Your task to perform on an android device: Go to wifi settings Image 0: 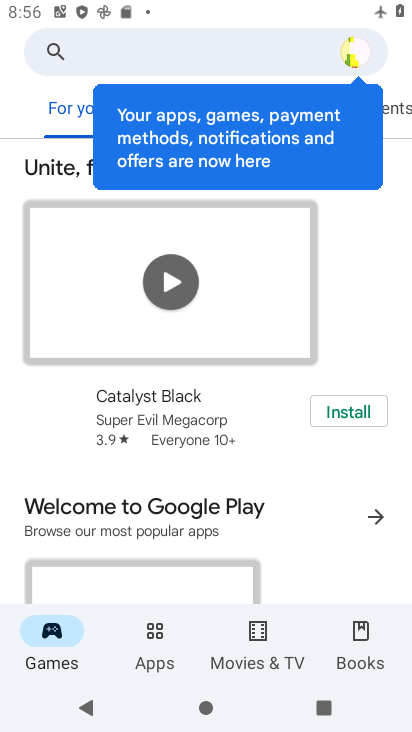
Step 0: press home button
Your task to perform on an android device: Go to wifi settings Image 1: 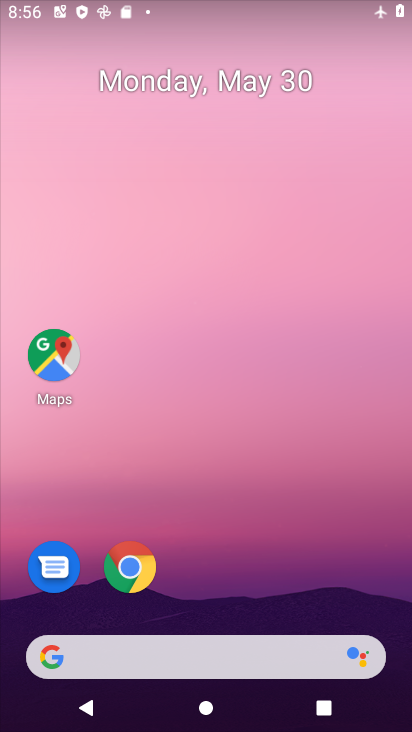
Step 1: drag from (249, 594) to (217, 107)
Your task to perform on an android device: Go to wifi settings Image 2: 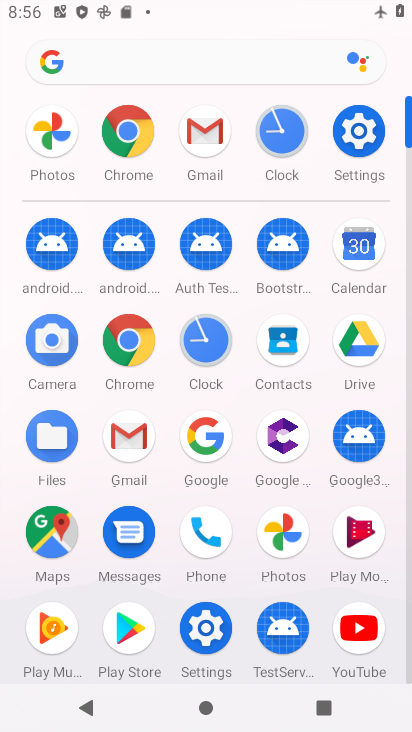
Step 2: click (350, 135)
Your task to perform on an android device: Go to wifi settings Image 3: 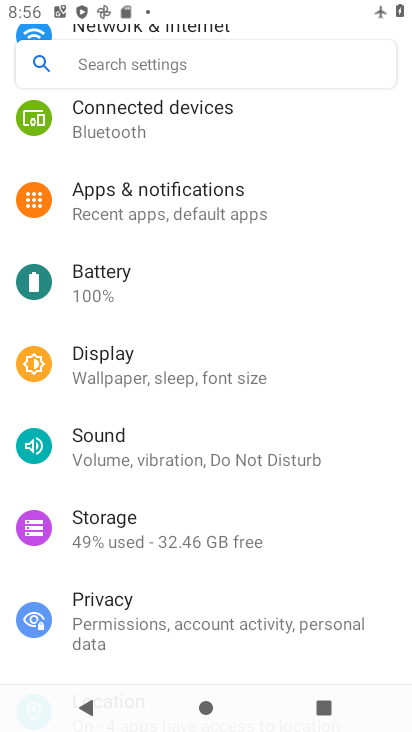
Step 3: drag from (270, 247) to (360, 691)
Your task to perform on an android device: Go to wifi settings Image 4: 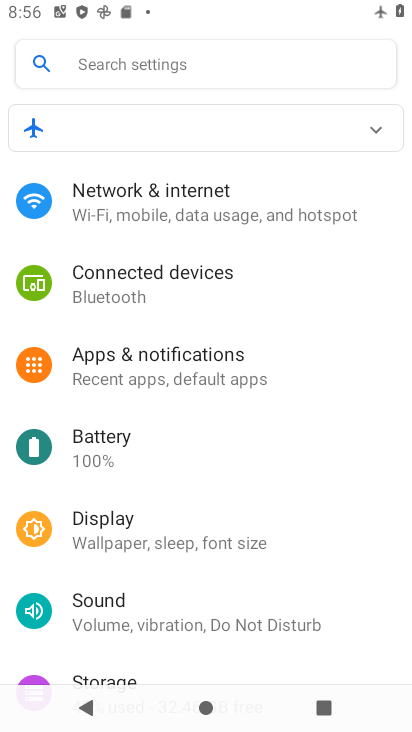
Step 4: click (200, 213)
Your task to perform on an android device: Go to wifi settings Image 5: 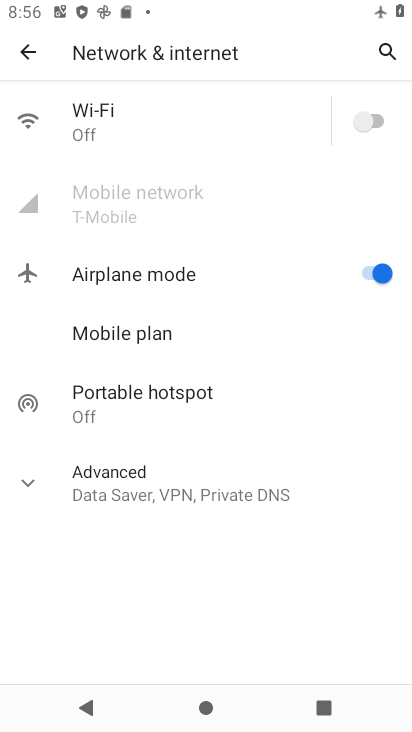
Step 5: click (356, 126)
Your task to perform on an android device: Go to wifi settings Image 6: 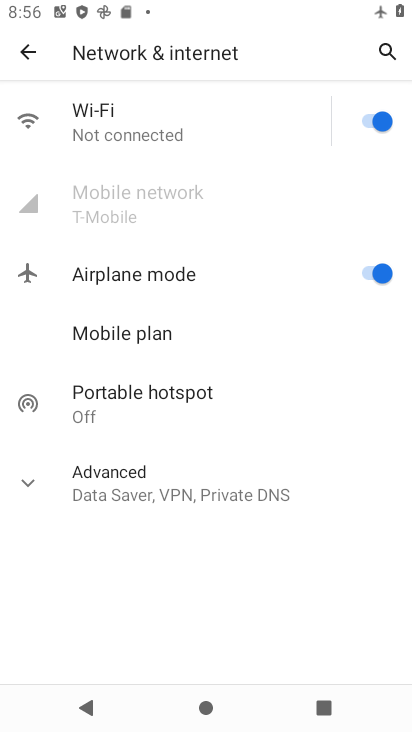
Step 6: task complete